Your task to perform on an android device: open app "Adobe Acrobat Reader: Edit PDF" (install if not already installed) Image 0: 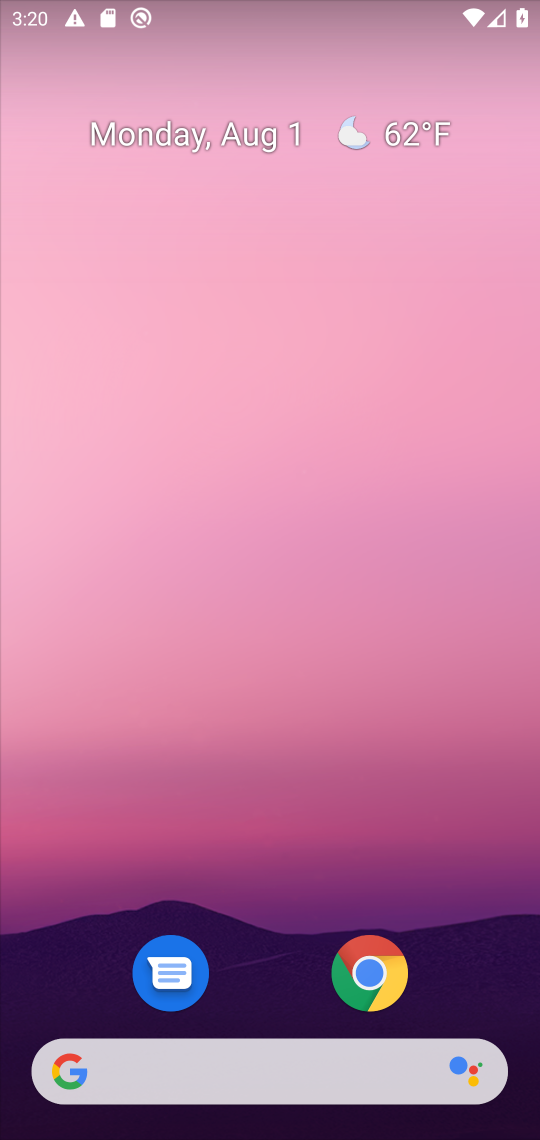
Step 0: drag from (236, 1044) to (9, 106)
Your task to perform on an android device: open app "Adobe Acrobat Reader: Edit PDF" (install if not already installed) Image 1: 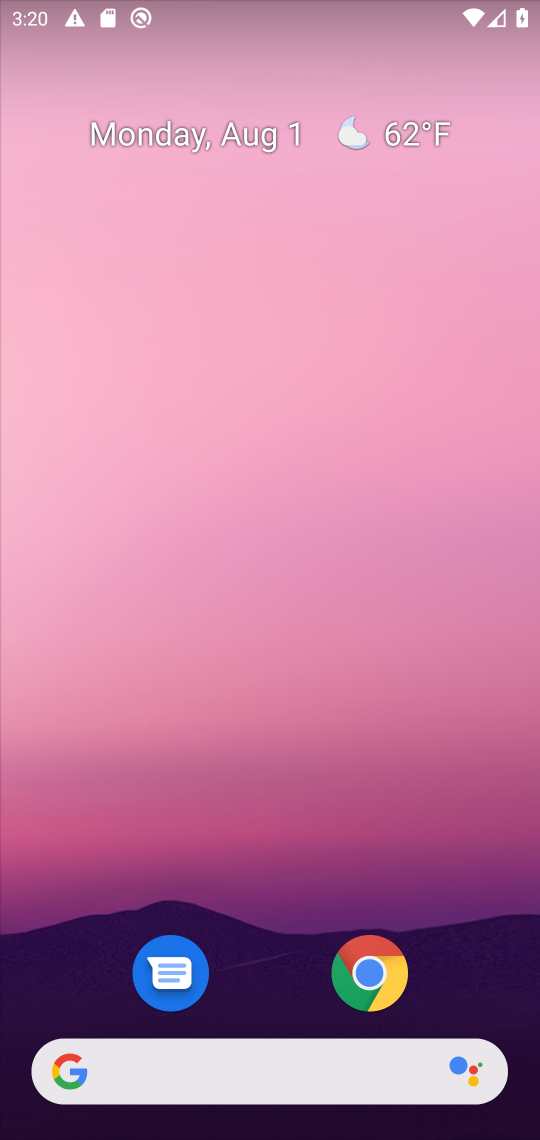
Step 1: drag from (181, 729) to (143, 309)
Your task to perform on an android device: open app "Adobe Acrobat Reader: Edit PDF" (install if not already installed) Image 2: 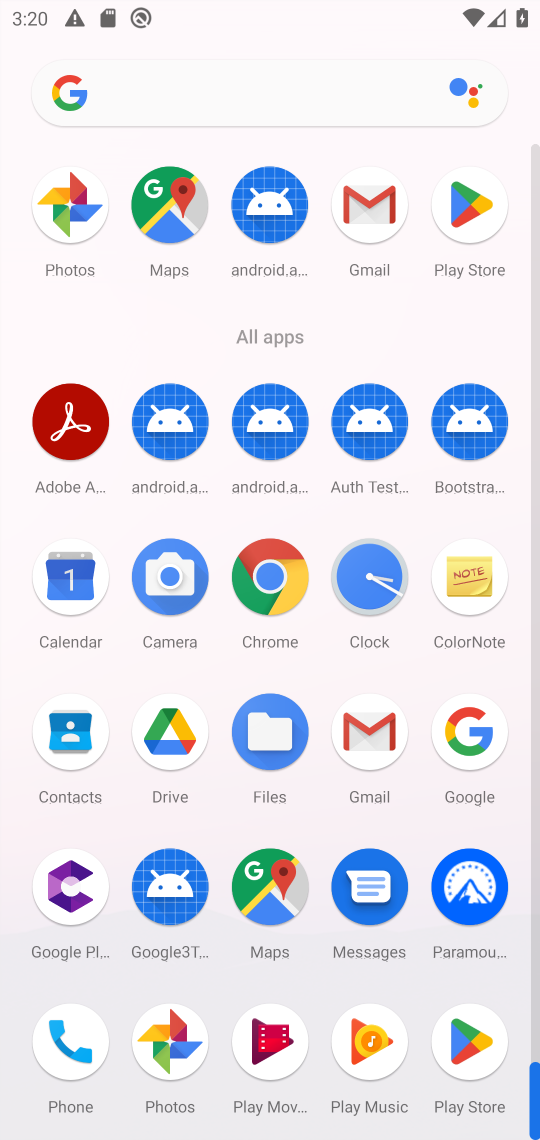
Step 2: click (87, 420)
Your task to perform on an android device: open app "Adobe Acrobat Reader: Edit PDF" (install if not already installed) Image 3: 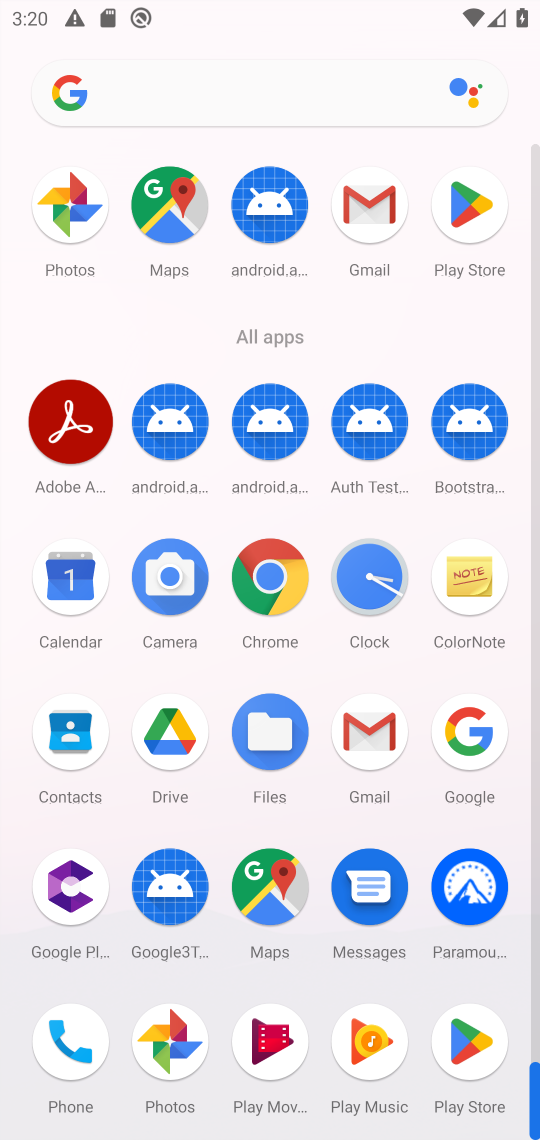
Step 3: click (87, 420)
Your task to perform on an android device: open app "Adobe Acrobat Reader: Edit PDF" (install if not already installed) Image 4: 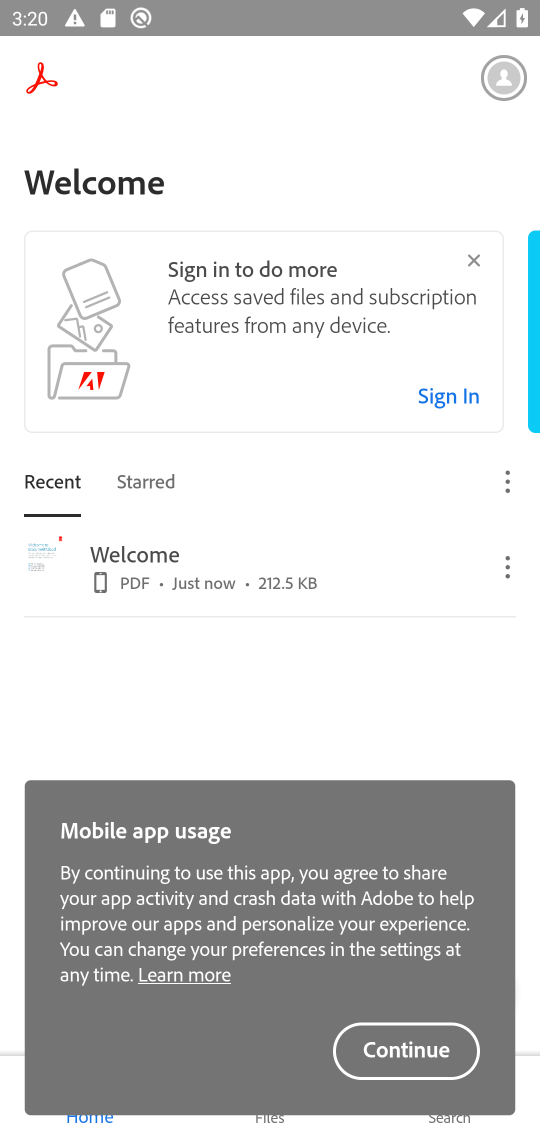
Step 4: task complete